Your task to perform on an android device: check storage Image 0: 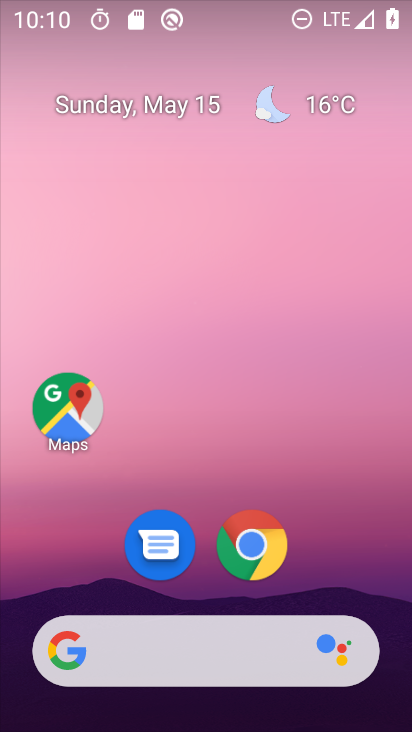
Step 0: drag from (338, 567) to (270, 138)
Your task to perform on an android device: check storage Image 1: 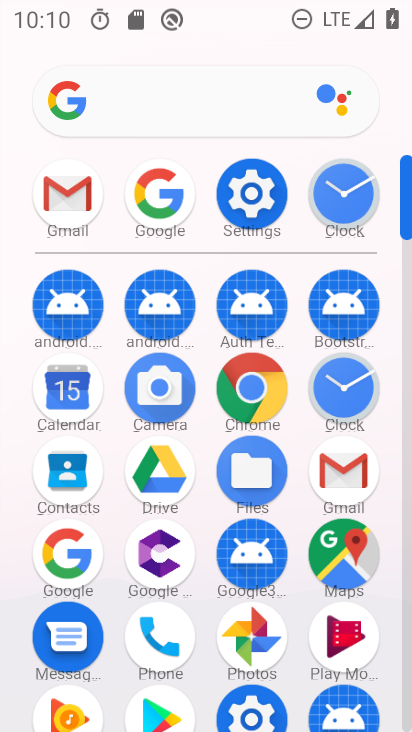
Step 1: click (251, 195)
Your task to perform on an android device: check storage Image 2: 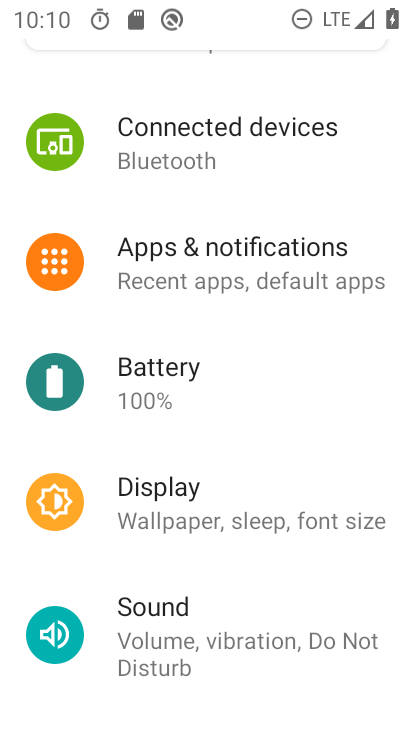
Step 2: drag from (223, 455) to (265, 365)
Your task to perform on an android device: check storage Image 3: 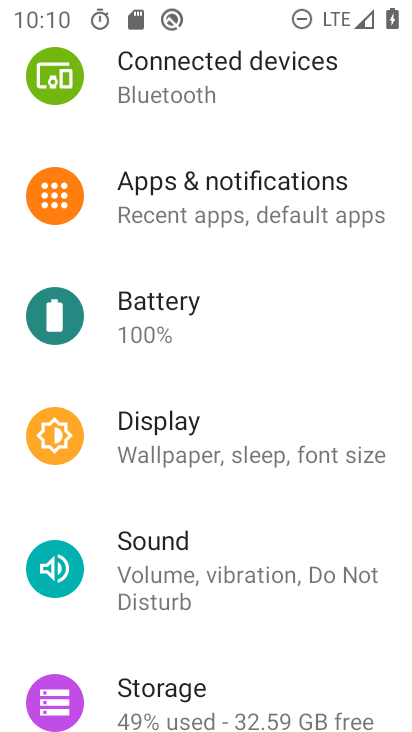
Step 3: drag from (190, 633) to (243, 473)
Your task to perform on an android device: check storage Image 4: 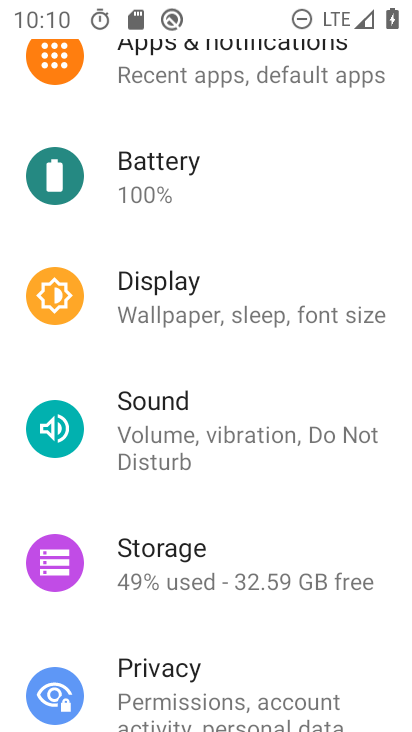
Step 4: click (147, 554)
Your task to perform on an android device: check storage Image 5: 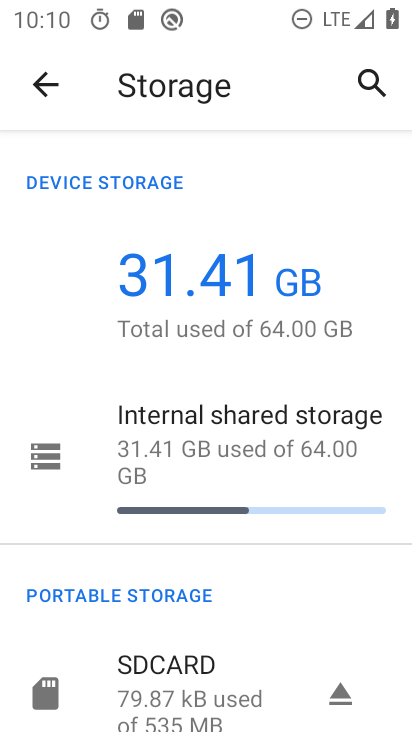
Step 5: task complete